Your task to perform on an android device: Open settings on Google Maps Image 0: 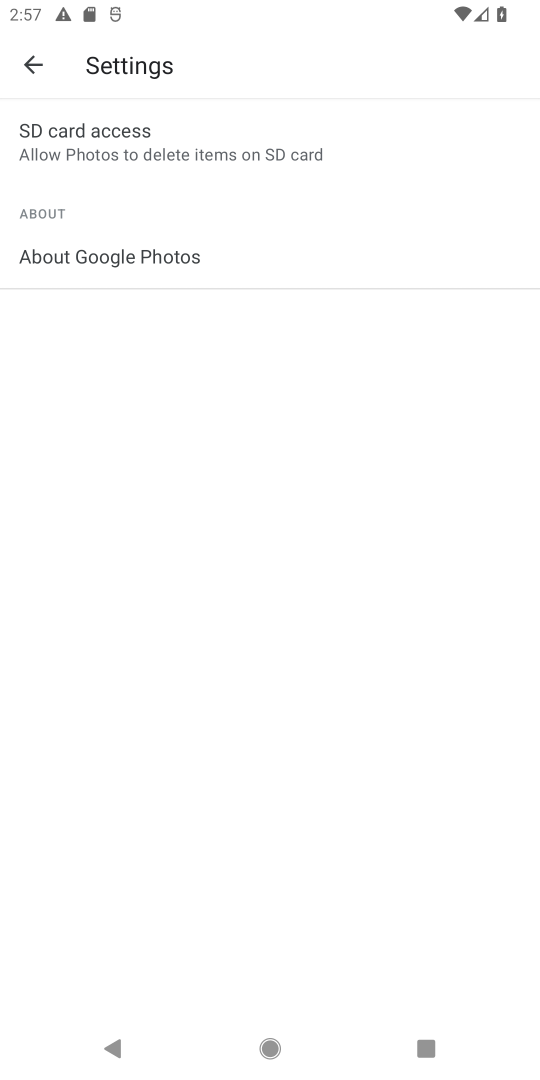
Step 0: click (33, 77)
Your task to perform on an android device: Open settings on Google Maps Image 1: 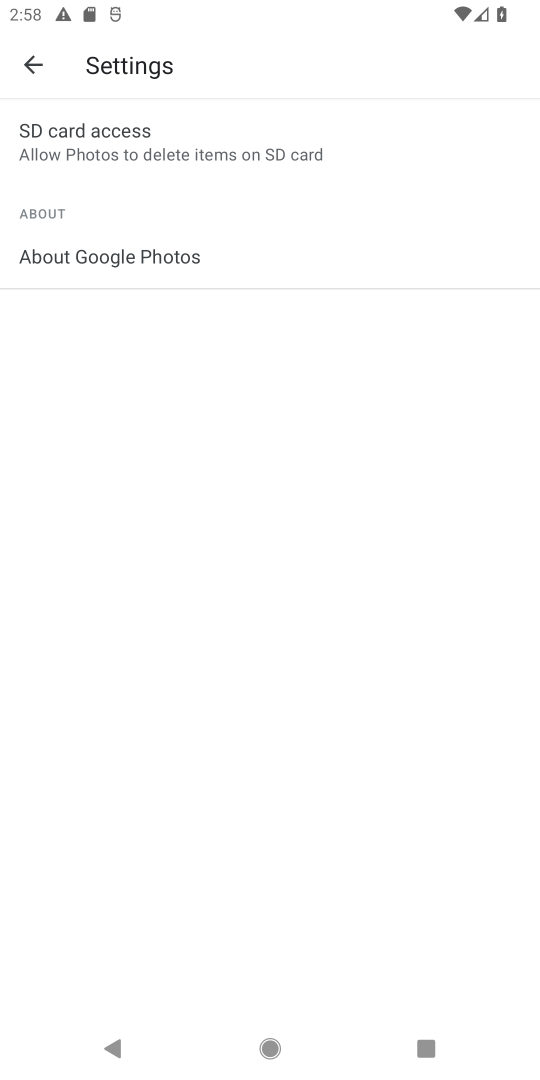
Step 1: click (34, 56)
Your task to perform on an android device: Open settings on Google Maps Image 2: 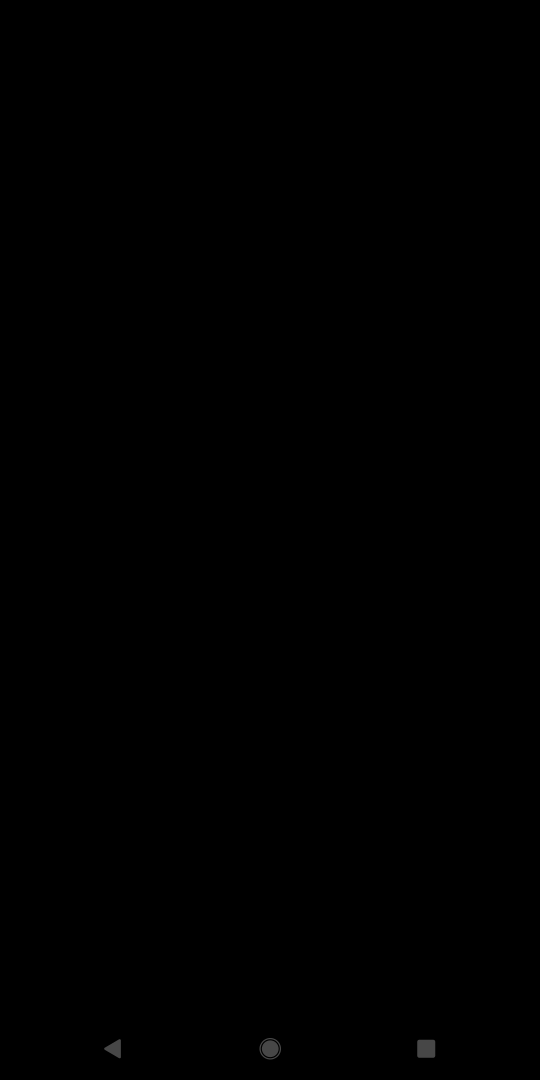
Step 2: press back button
Your task to perform on an android device: Open settings on Google Maps Image 3: 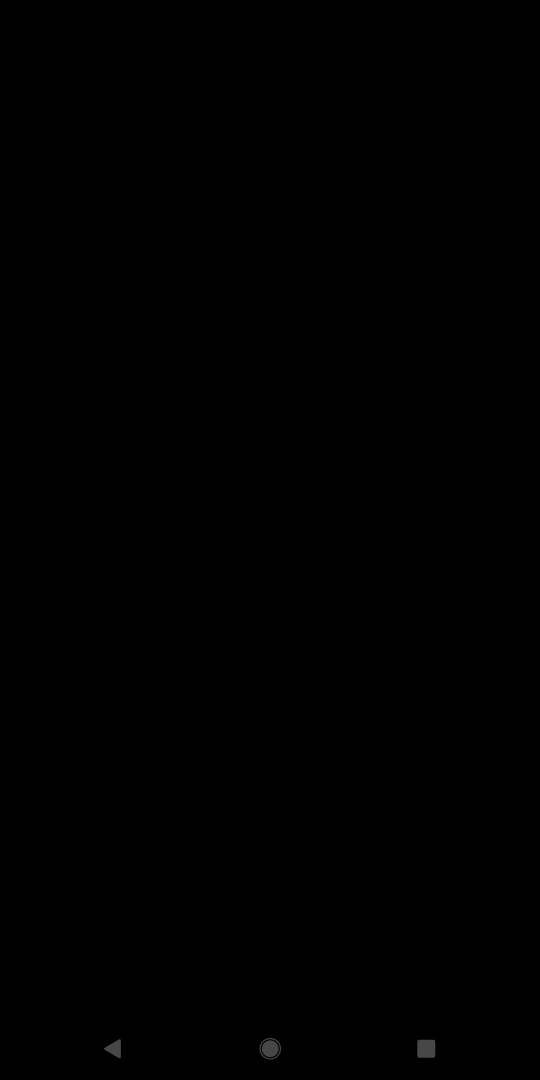
Step 3: click (303, 537)
Your task to perform on an android device: Open settings on Google Maps Image 4: 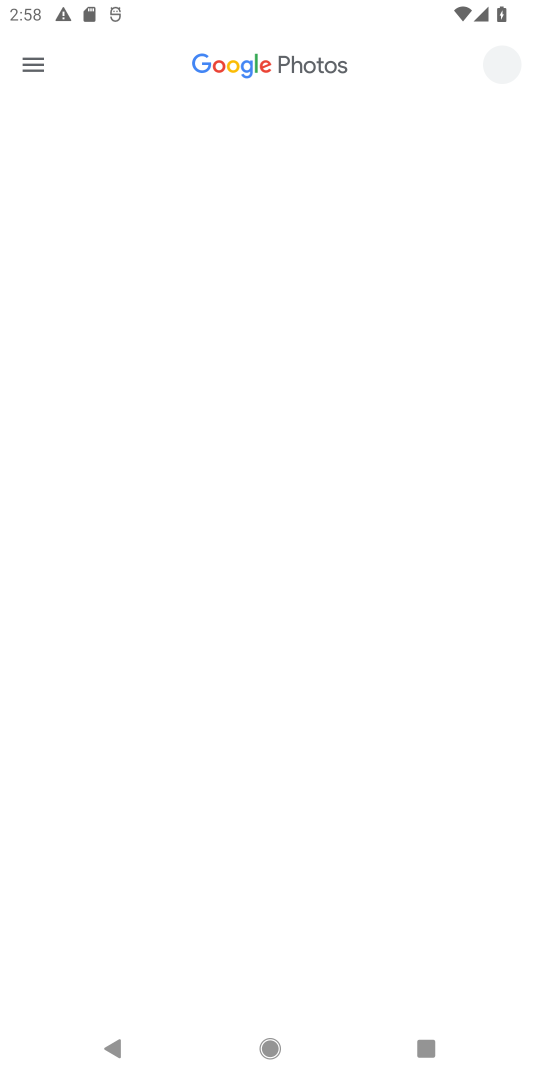
Step 4: press back button
Your task to perform on an android device: Open settings on Google Maps Image 5: 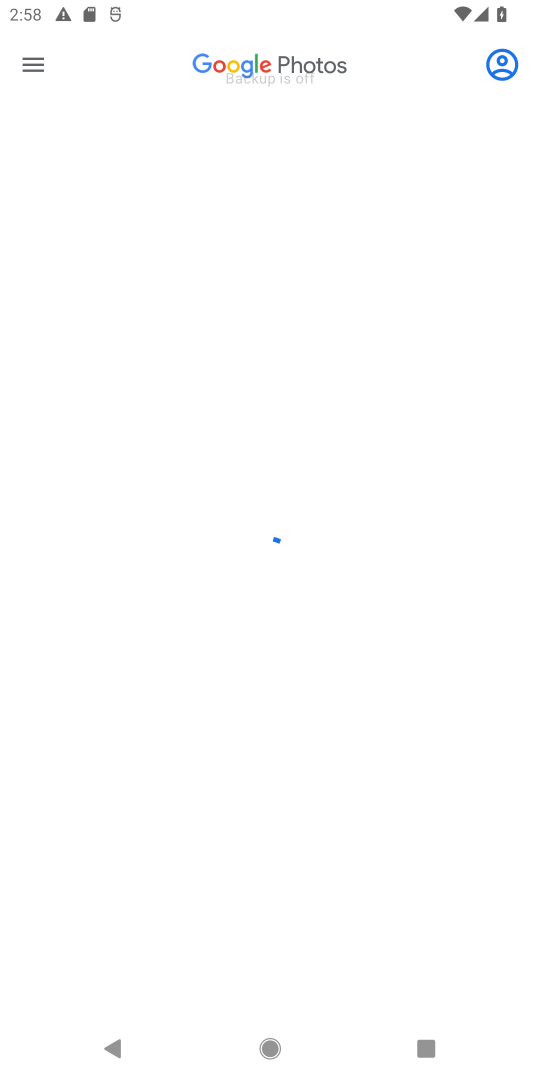
Step 5: press home button
Your task to perform on an android device: Open settings on Google Maps Image 6: 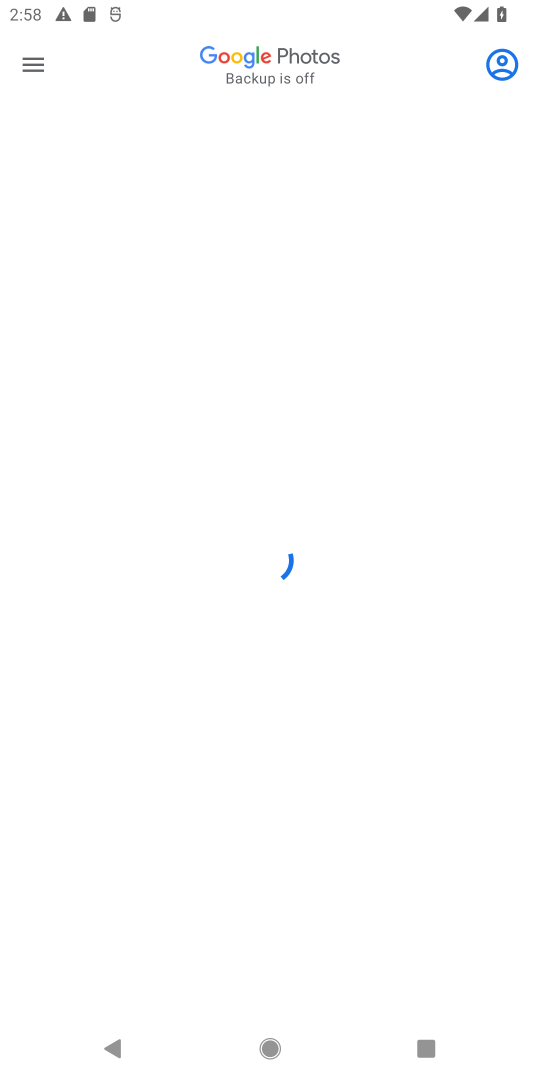
Step 6: click (291, 372)
Your task to perform on an android device: Open settings on Google Maps Image 7: 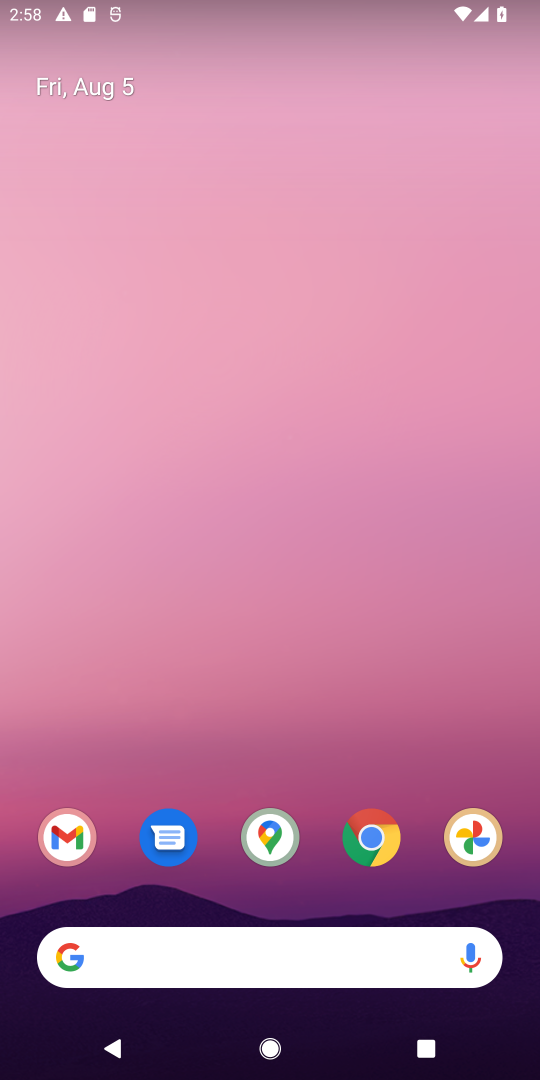
Step 7: press back button
Your task to perform on an android device: Open settings on Google Maps Image 8: 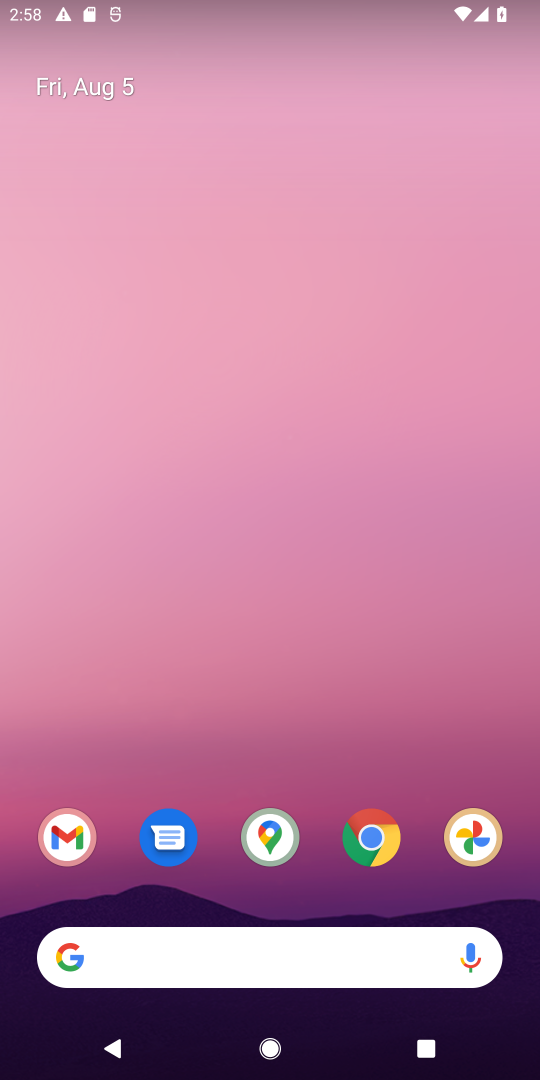
Step 8: drag from (335, 818) to (283, 510)
Your task to perform on an android device: Open settings on Google Maps Image 9: 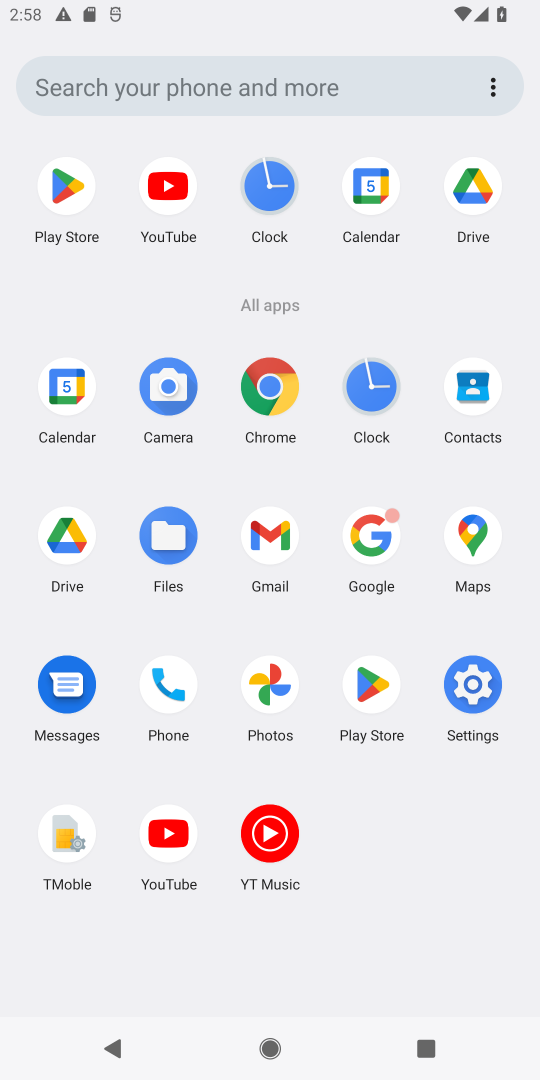
Step 9: drag from (289, 915) to (229, 654)
Your task to perform on an android device: Open settings on Google Maps Image 10: 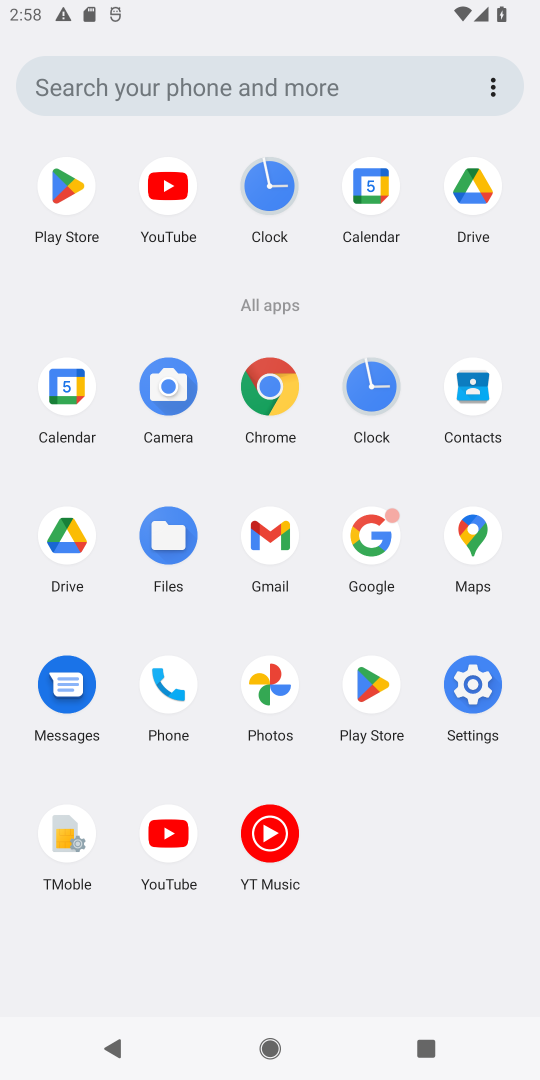
Step 10: click (467, 549)
Your task to perform on an android device: Open settings on Google Maps Image 11: 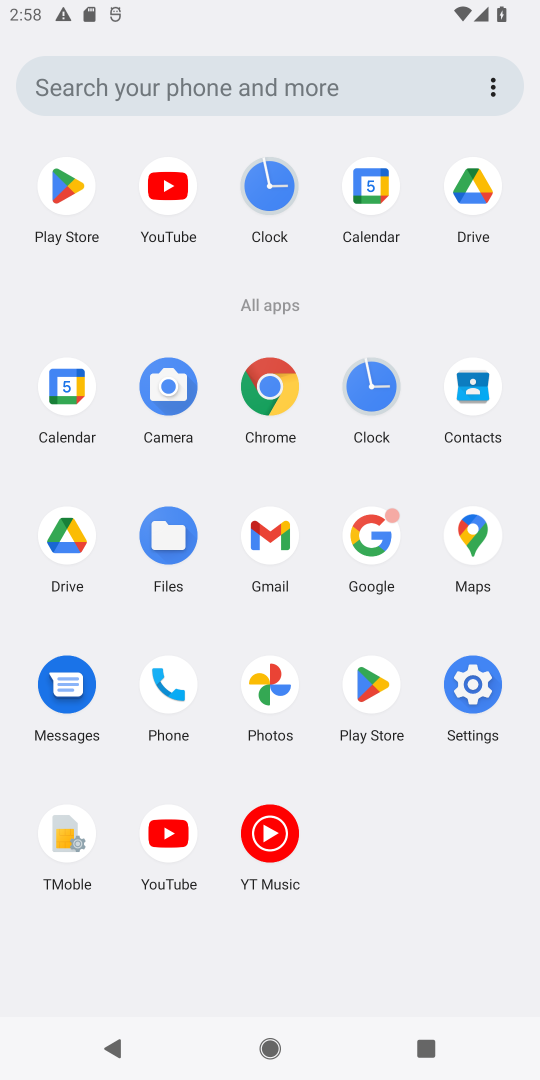
Step 11: click (468, 547)
Your task to perform on an android device: Open settings on Google Maps Image 12: 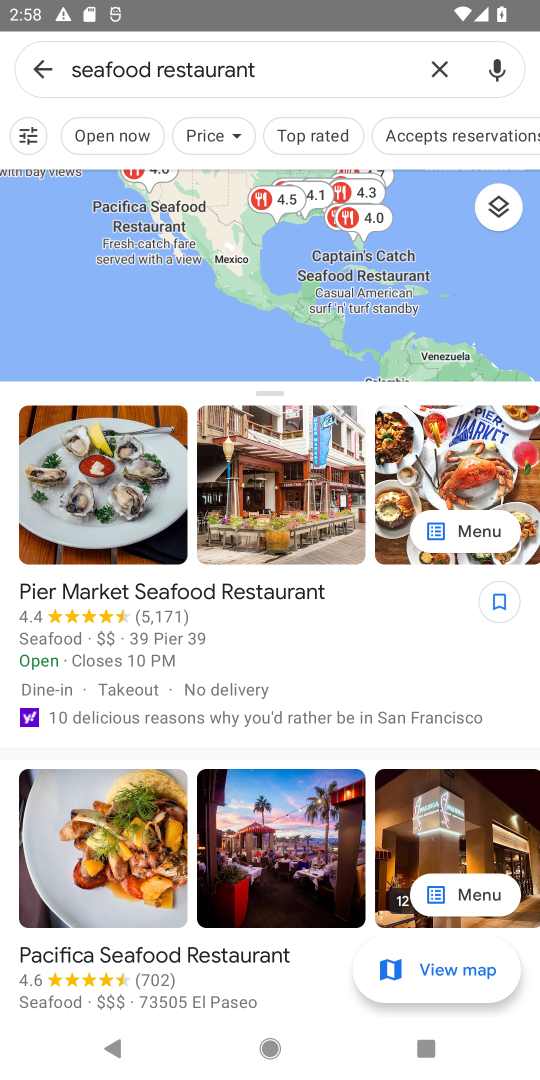
Step 12: click (39, 72)
Your task to perform on an android device: Open settings on Google Maps Image 13: 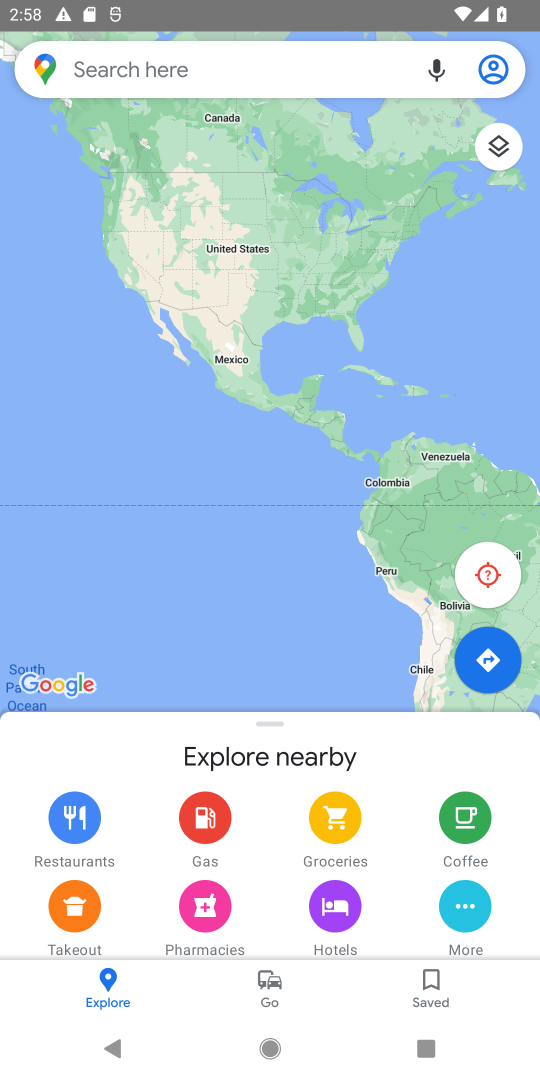
Step 13: click (114, 76)
Your task to perform on an android device: Open settings on Google Maps Image 14: 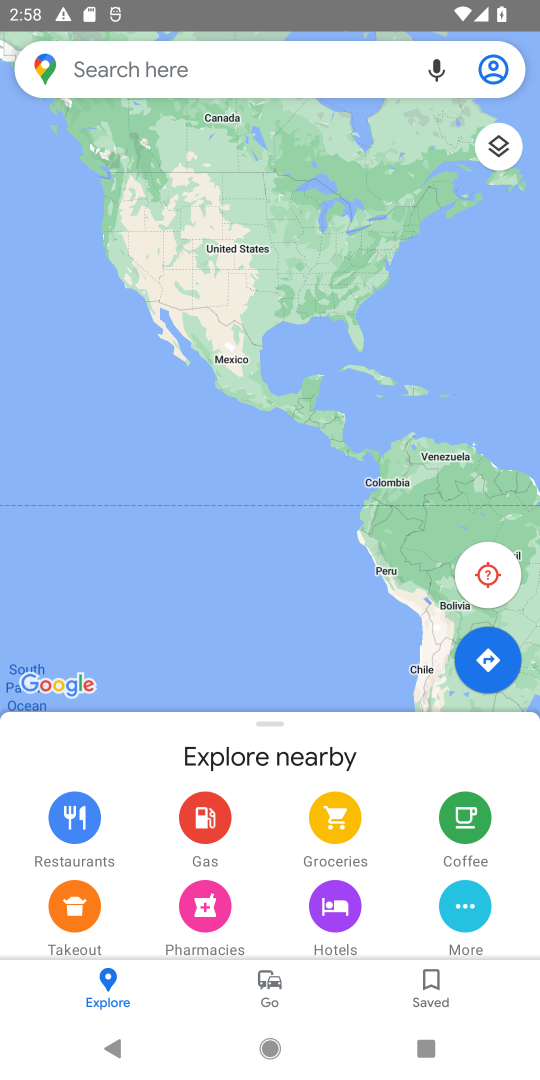
Step 14: click (114, 76)
Your task to perform on an android device: Open settings on Google Maps Image 15: 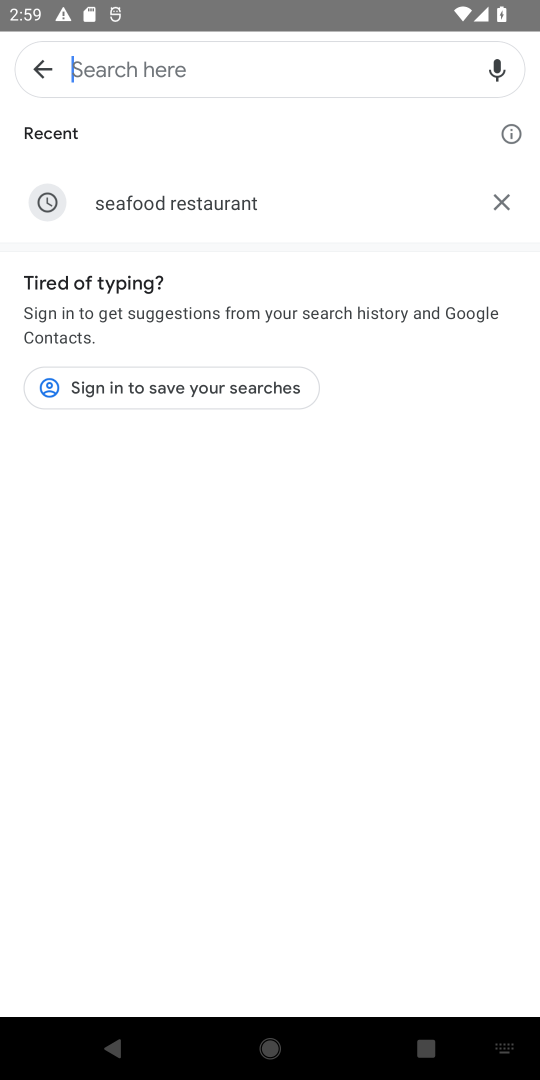
Step 15: task complete